Your task to perform on an android device: What is the recent news? Image 0: 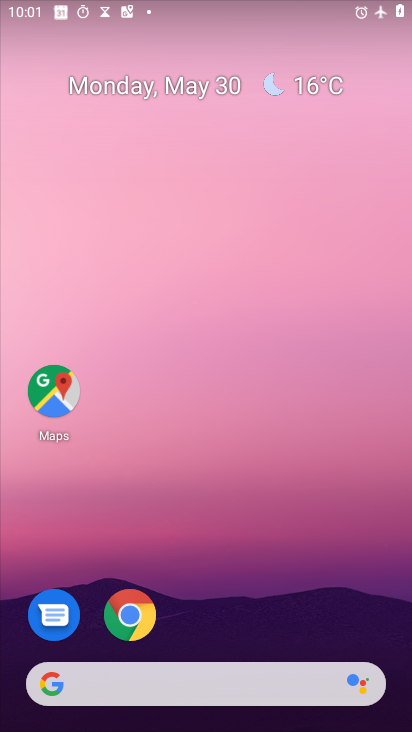
Step 0: drag from (249, 651) to (218, 37)
Your task to perform on an android device: What is the recent news? Image 1: 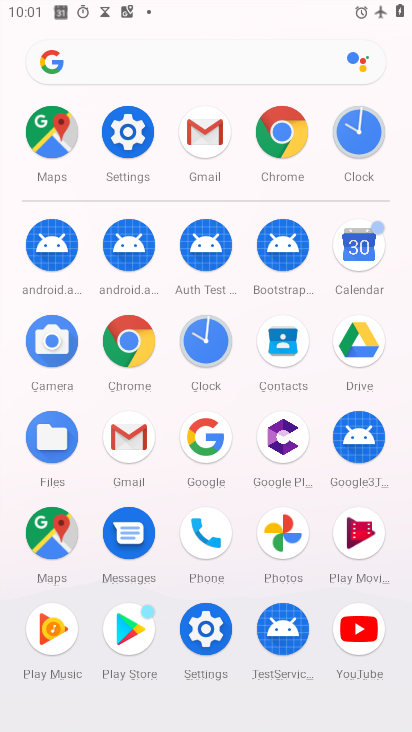
Step 1: click (285, 140)
Your task to perform on an android device: What is the recent news? Image 2: 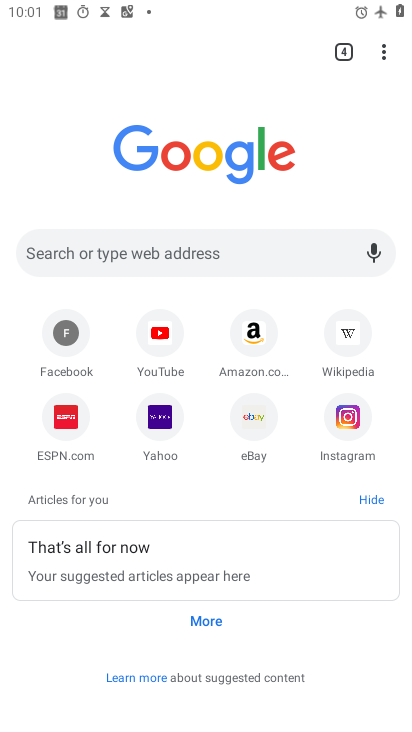
Step 2: task complete